Your task to perform on an android device: add a contact in the contacts app Image 0: 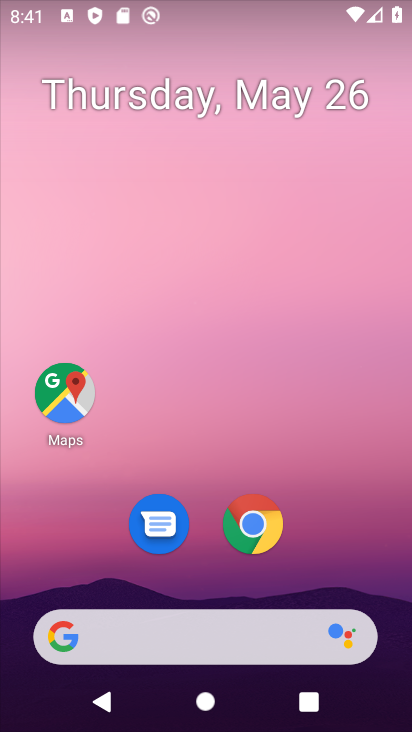
Step 0: drag from (311, 521) to (232, 51)
Your task to perform on an android device: add a contact in the contacts app Image 1: 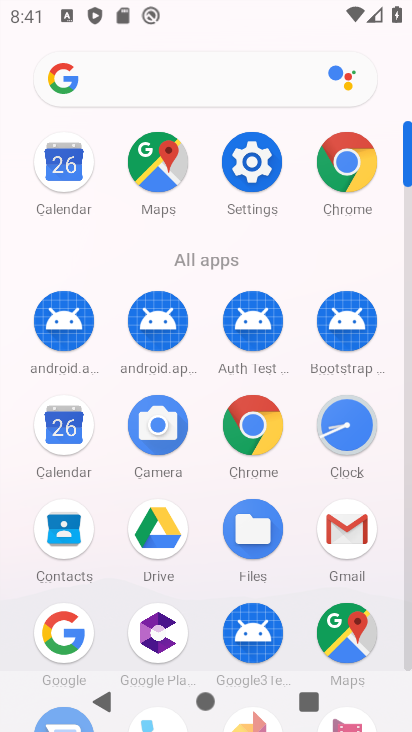
Step 1: click (61, 526)
Your task to perform on an android device: add a contact in the contacts app Image 2: 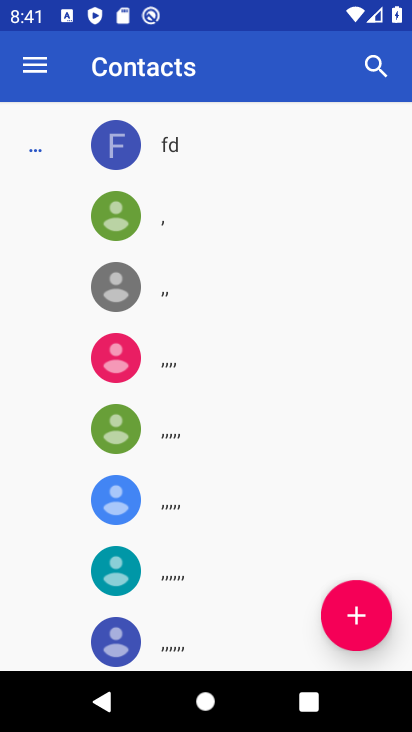
Step 2: click (359, 616)
Your task to perform on an android device: add a contact in the contacts app Image 3: 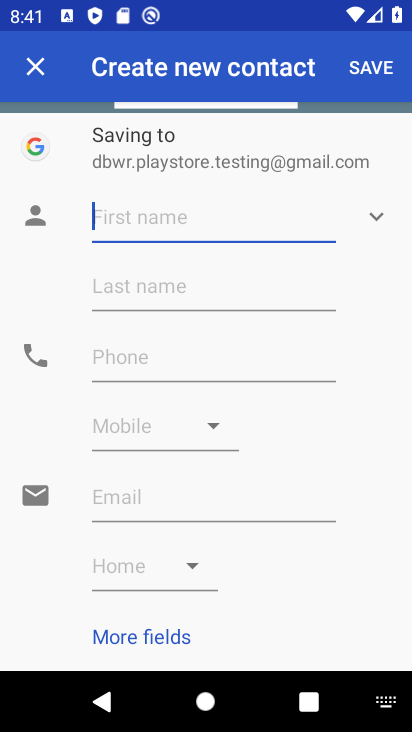
Step 3: type "Zin"
Your task to perform on an android device: add a contact in the contacts app Image 4: 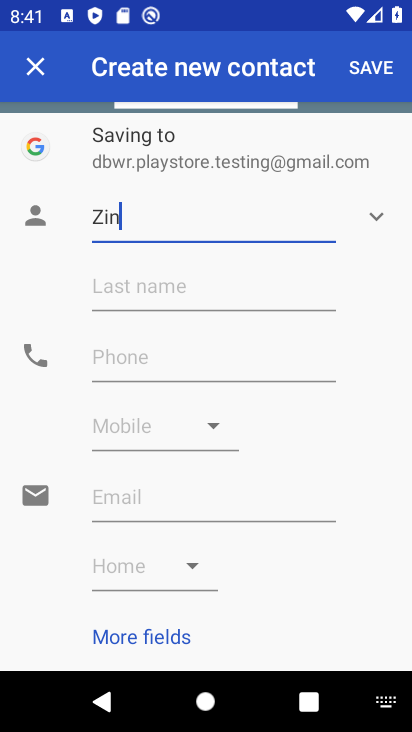
Step 4: click (249, 368)
Your task to perform on an android device: add a contact in the contacts app Image 5: 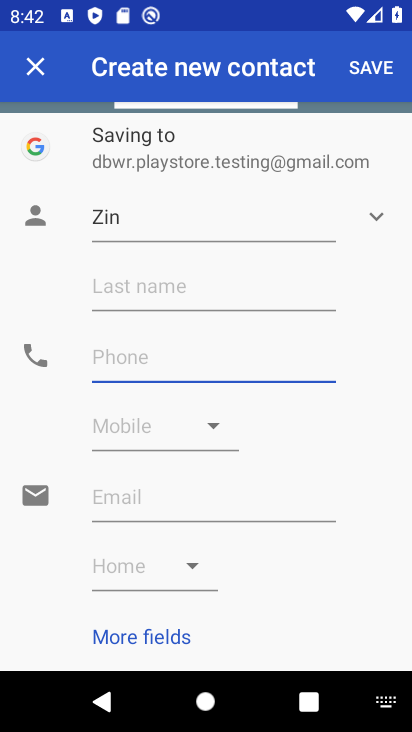
Step 5: type "0113344"
Your task to perform on an android device: add a contact in the contacts app Image 6: 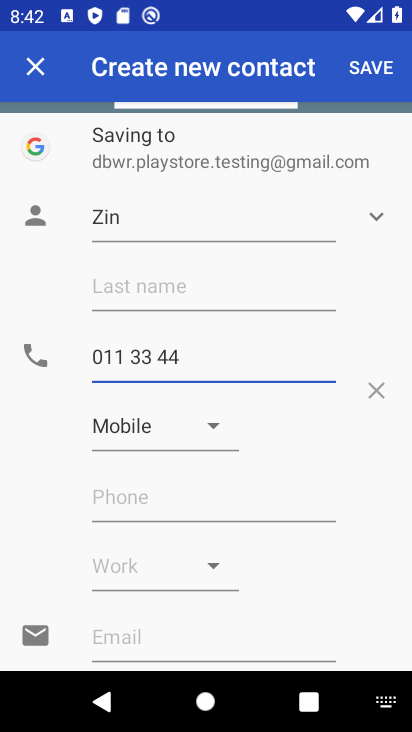
Step 6: click (371, 68)
Your task to perform on an android device: add a contact in the contacts app Image 7: 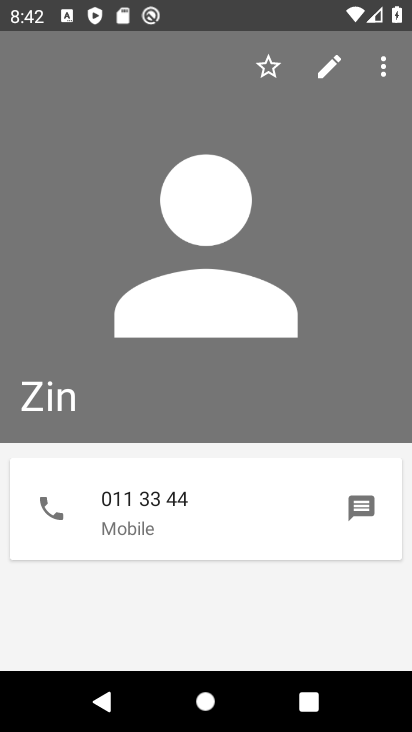
Step 7: task complete